Your task to perform on an android device: Go to display settings Image 0: 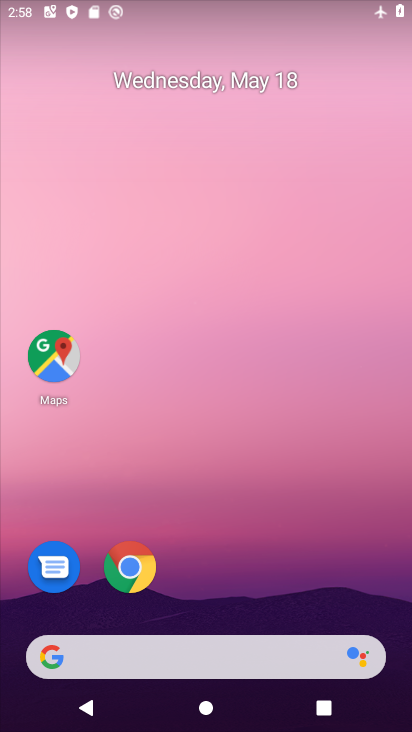
Step 0: drag from (316, 597) to (294, 140)
Your task to perform on an android device: Go to display settings Image 1: 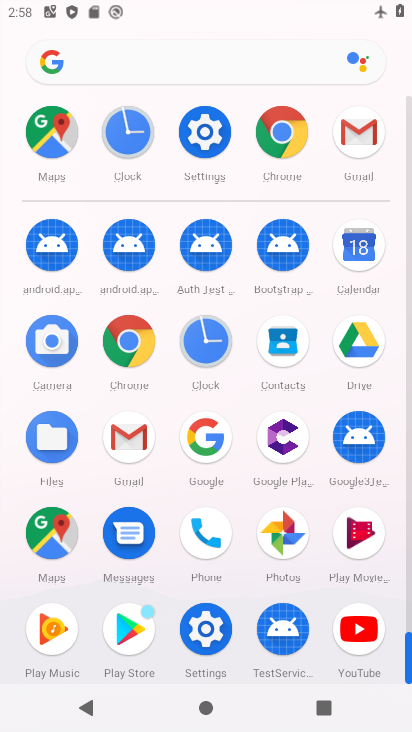
Step 1: click (194, 125)
Your task to perform on an android device: Go to display settings Image 2: 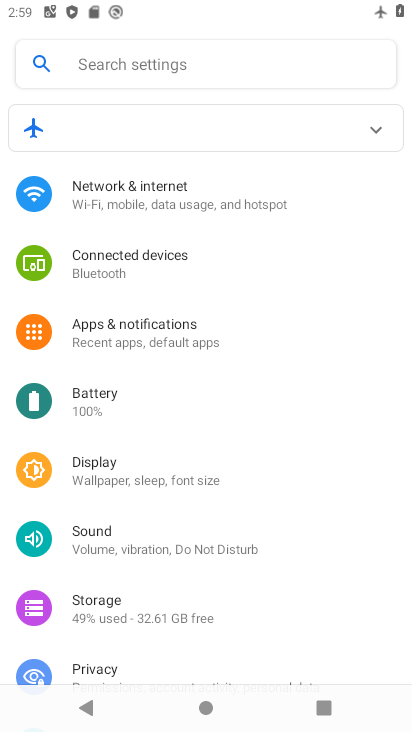
Step 2: click (134, 469)
Your task to perform on an android device: Go to display settings Image 3: 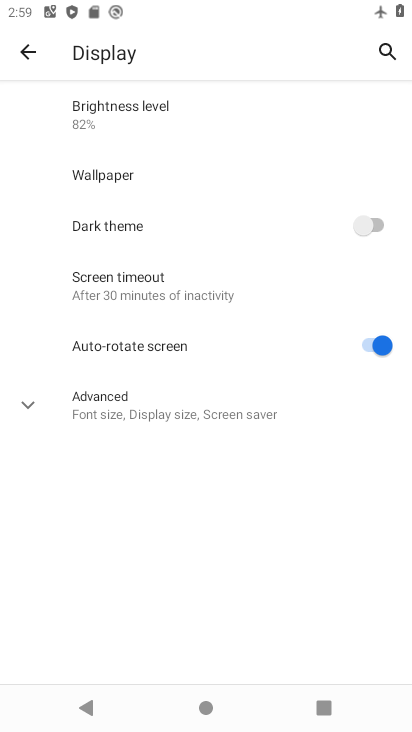
Step 3: task complete